Your task to perform on an android device: Search for good Indian restaurants Image 0: 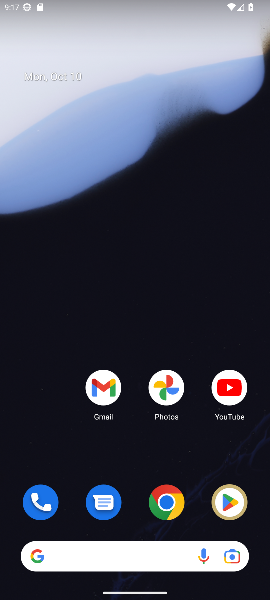
Step 0: click (164, 497)
Your task to perform on an android device: Search for good Indian restaurants Image 1: 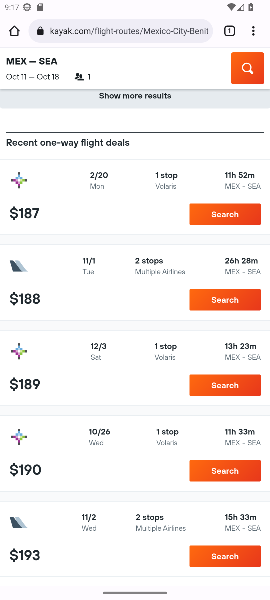
Step 1: click (108, 22)
Your task to perform on an android device: Search for good Indian restaurants Image 2: 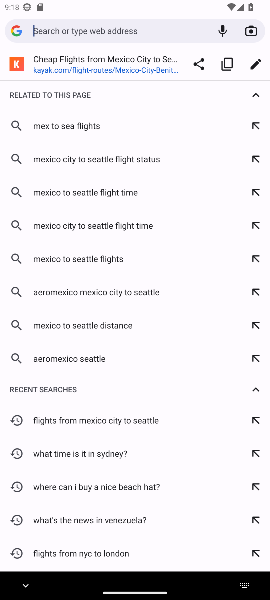
Step 2: type "good indian retuarent"
Your task to perform on an android device: Search for good Indian restaurants Image 3: 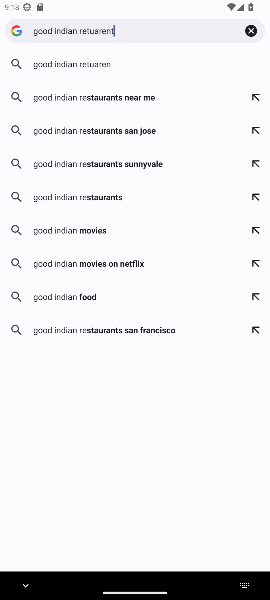
Step 3: type ""
Your task to perform on an android device: Search for good Indian restaurants Image 4: 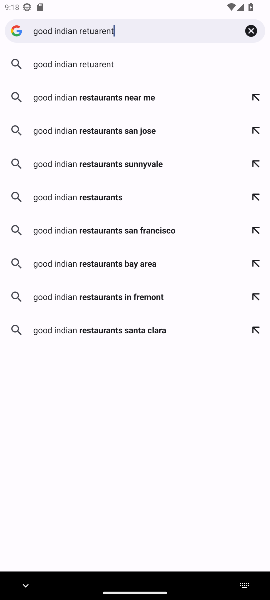
Step 4: press enter
Your task to perform on an android device: Search for good Indian restaurants Image 5: 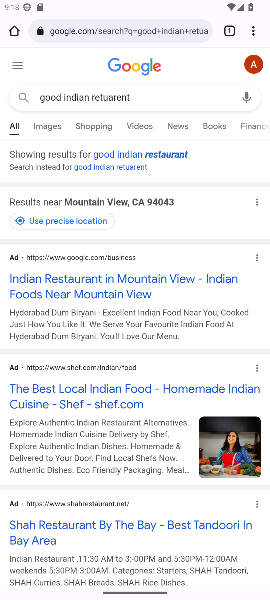
Step 5: click (162, 282)
Your task to perform on an android device: Search for good Indian restaurants Image 6: 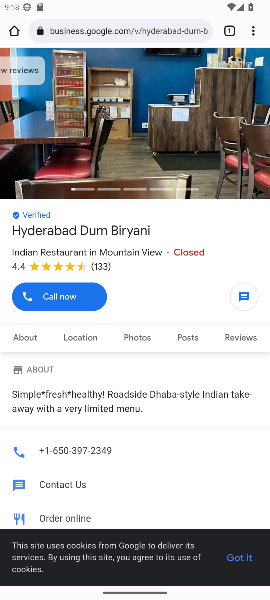
Step 6: drag from (159, 433) to (131, 466)
Your task to perform on an android device: Search for good Indian restaurants Image 7: 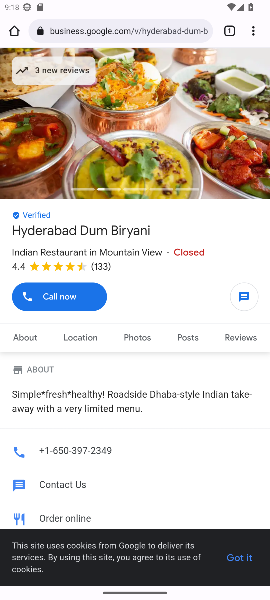
Step 7: drag from (212, 148) to (37, 143)
Your task to perform on an android device: Search for good Indian restaurants Image 8: 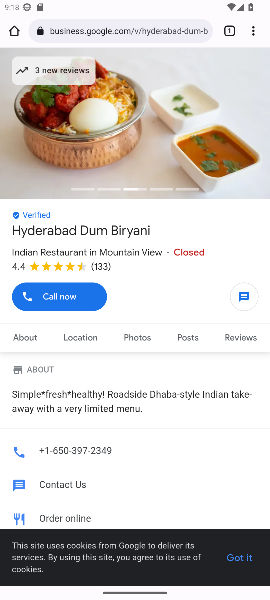
Step 8: drag from (200, 142) to (31, 137)
Your task to perform on an android device: Search for good Indian restaurants Image 9: 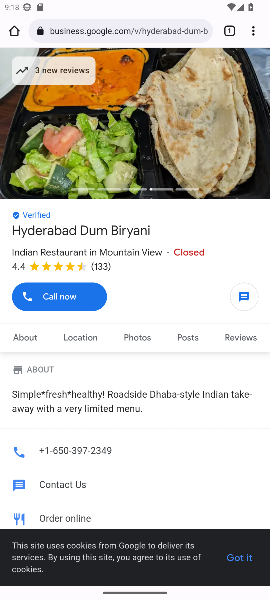
Step 9: drag from (199, 150) to (1, 151)
Your task to perform on an android device: Search for good Indian restaurants Image 10: 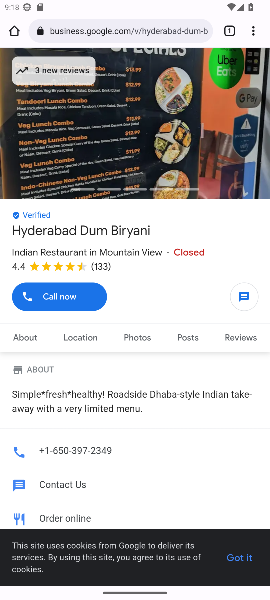
Step 10: drag from (214, 157) to (16, 180)
Your task to perform on an android device: Search for good Indian restaurants Image 11: 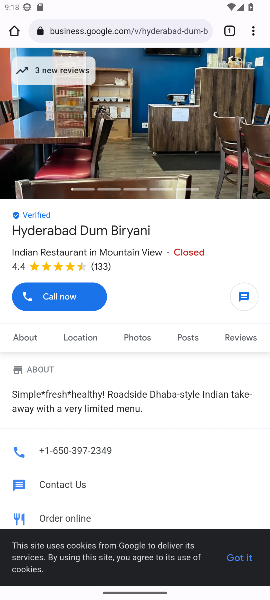
Step 11: drag from (170, 414) to (139, 115)
Your task to perform on an android device: Search for good Indian restaurants Image 12: 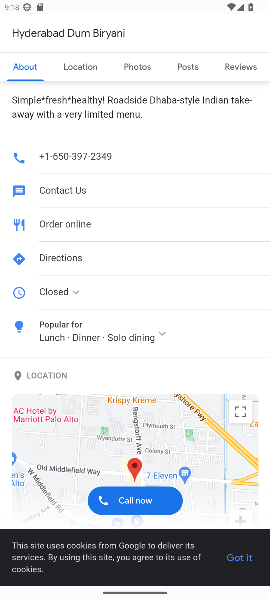
Step 12: drag from (172, 392) to (130, 110)
Your task to perform on an android device: Search for good Indian restaurants Image 13: 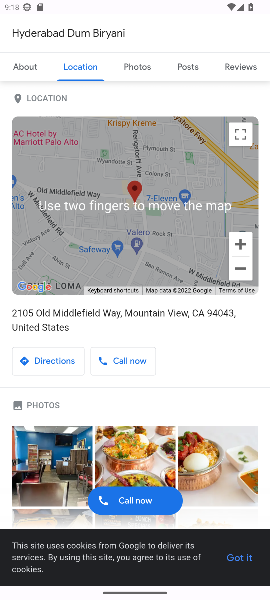
Step 13: drag from (155, 398) to (142, 118)
Your task to perform on an android device: Search for good Indian restaurants Image 14: 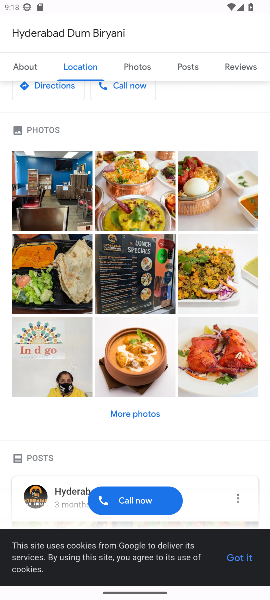
Step 14: drag from (192, 386) to (180, 262)
Your task to perform on an android device: Search for good Indian restaurants Image 15: 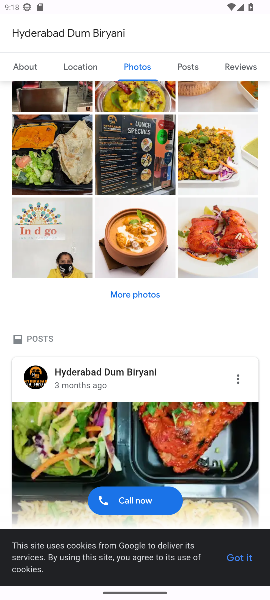
Step 15: click (57, 221)
Your task to perform on an android device: Search for good Indian restaurants Image 16: 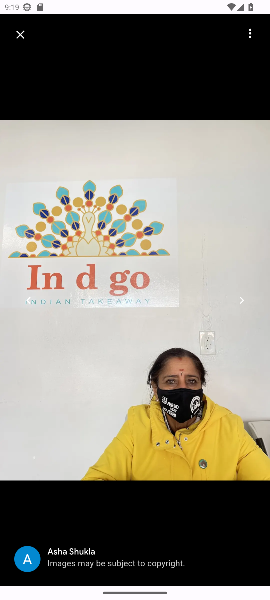
Step 16: drag from (139, 397) to (266, 393)
Your task to perform on an android device: Search for good Indian restaurants Image 17: 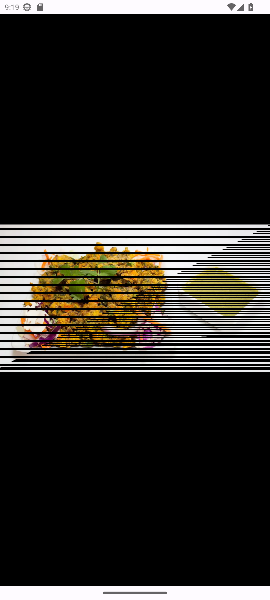
Step 17: click (17, 33)
Your task to perform on an android device: Search for good Indian restaurants Image 18: 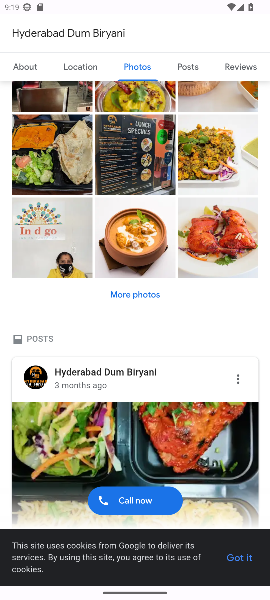
Step 18: drag from (92, 435) to (63, 56)
Your task to perform on an android device: Search for good Indian restaurants Image 19: 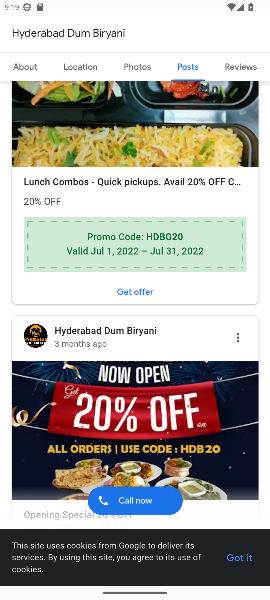
Step 19: drag from (119, 420) to (95, 108)
Your task to perform on an android device: Search for good Indian restaurants Image 20: 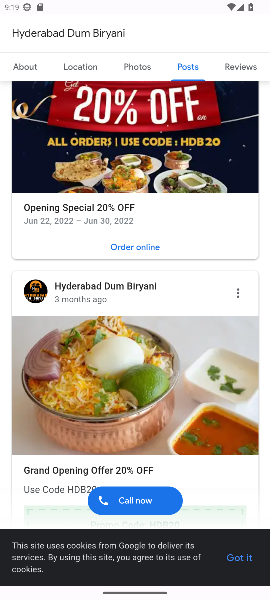
Step 20: drag from (131, 394) to (106, 150)
Your task to perform on an android device: Search for good Indian restaurants Image 21: 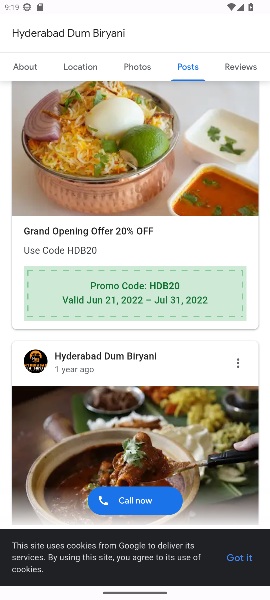
Step 21: drag from (156, 417) to (126, 102)
Your task to perform on an android device: Search for good Indian restaurants Image 22: 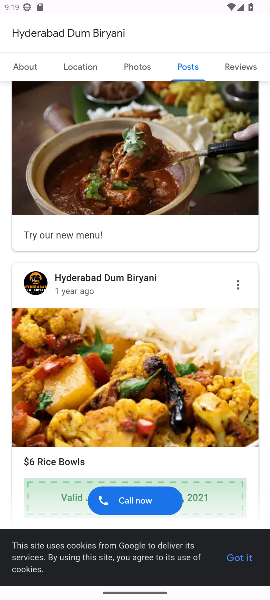
Step 22: drag from (146, 388) to (120, 97)
Your task to perform on an android device: Search for good Indian restaurants Image 23: 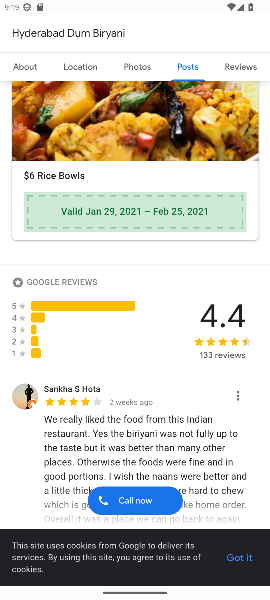
Step 23: drag from (158, 373) to (144, 151)
Your task to perform on an android device: Search for good Indian restaurants Image 24: 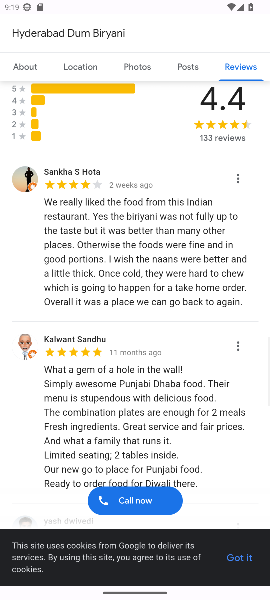
Step 24: drag from (162, 415) to (154, 116)
Your task to perform on an android device: Search for good Indian restaurants Image 25: 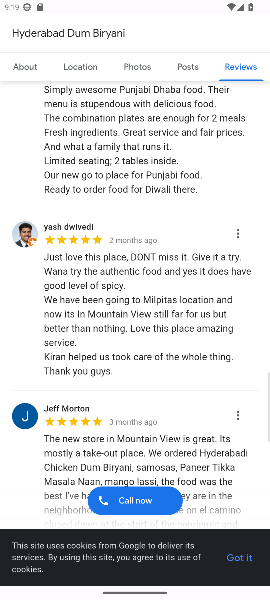
Step 25: drag from (178, 361) to (146, 157)
Your task to perform on an android device: Search for good Indian restaurants Image 26: 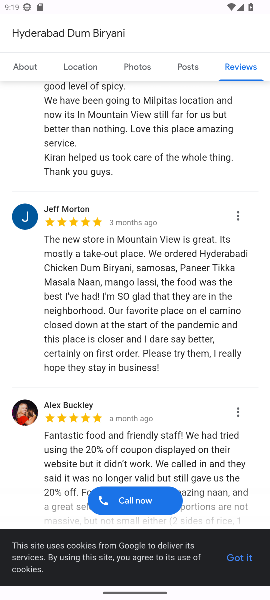
Step 26: drag from (173, 383) to (142, 175)
Your task to perform on an android device: Search for good Indian restaurants Image 27: 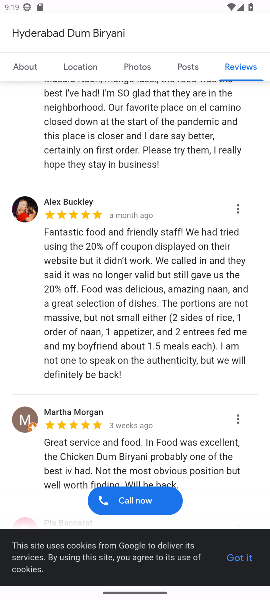
Step 27: drag from (142, 381) to (77, 165)
Your task to perform on an android device: Search for good Indian restaurants Image 28: 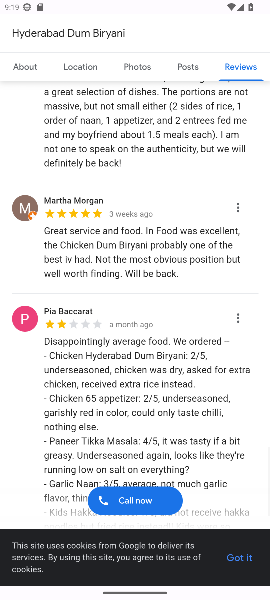
Step 28: drag from (118, 356) to (88, 134)
Your task to perform on an android device: Search for good Indian restaurants Image 29: 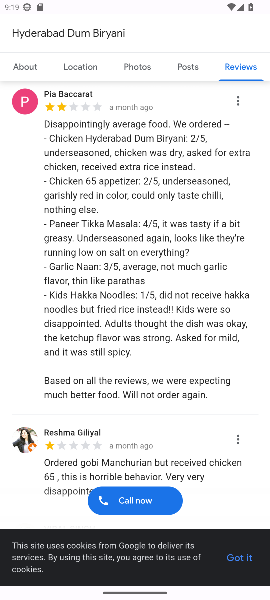
Step 29: drag from (137, 330) to (134, 187)
Your task to perform on an android device: Search for good Indian restaurants Image 30: 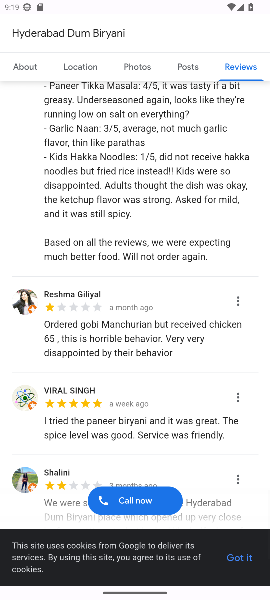
Step 30: drag from (166, 354) to (152, 206)
Your task to perform on an android device: Search for good Indian restaurants Image 31: 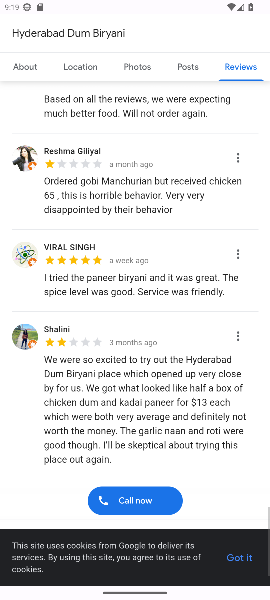
Step 31: drag from (186, 375) to (175, 187)
Your task to perform on an android device: Search for good Indian restaurants Image 32: 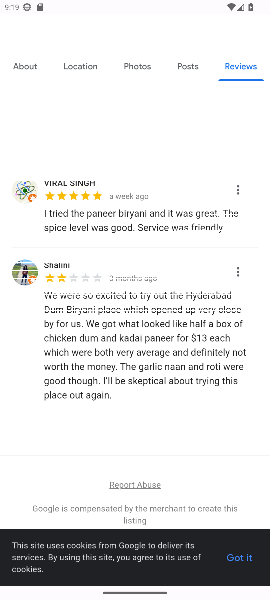
Step 32: press back button
Your task to perform on an android device: Search for good Indian restaurants Image 33: 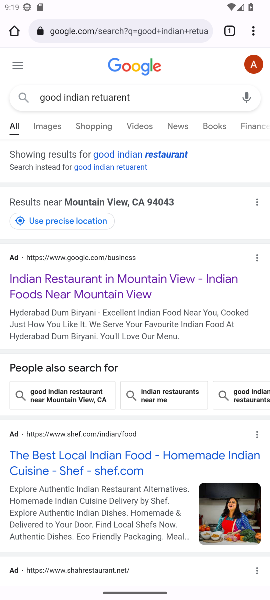
Step 33: click (85, 470)
Your task to perform on an android device: Search for good Indian restaurants Image 34: 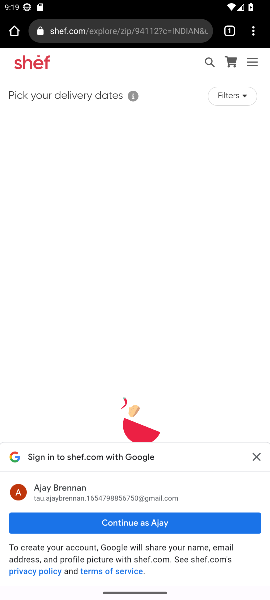
Step 34: drag from (85, 471) to (78, 362)
Your task to perform on an android device: Search for good Indian restaurants Image 35: 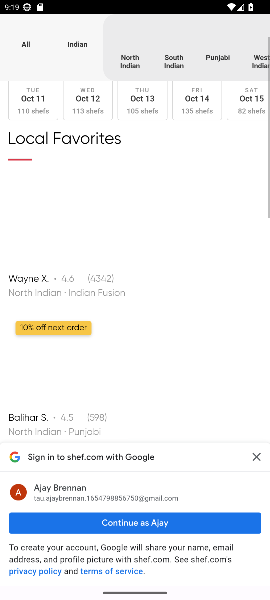
Step 35: click (221, 520)
Your task to perform on an android device: Search for good Indian restaurants Image 36: 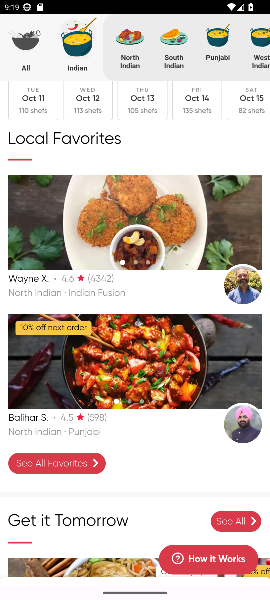
Step 36: drag from (211, 489) to (162, 199)
Your task to perform on an android device: Search for good Indian restaurants Image 37: 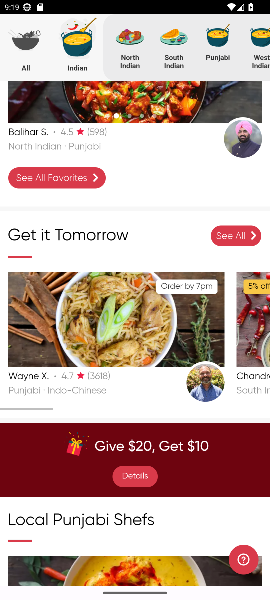
Step 37: drag from (173, 539) to (136, 175)
Your task to perform on an android device: Search for good Indian restaurants Image 38: 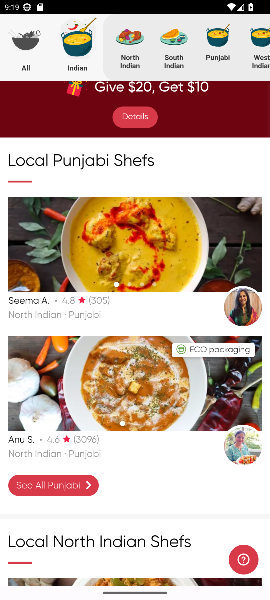
Step 38: drag from (152, 545) to (130, 109)
Your task to perform on an android device: Search for good Indian restaurants Image 39: 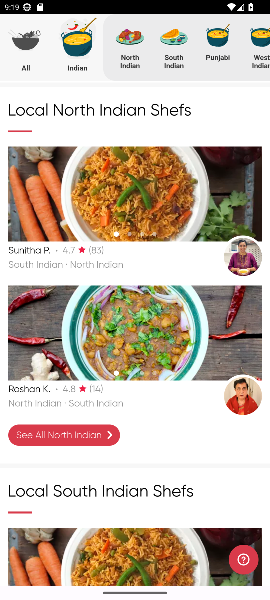
Step 39: drag from (111, 434) to (104, 89)
Your task to perform on an android device: Search for good Indian restaurants Image 40: 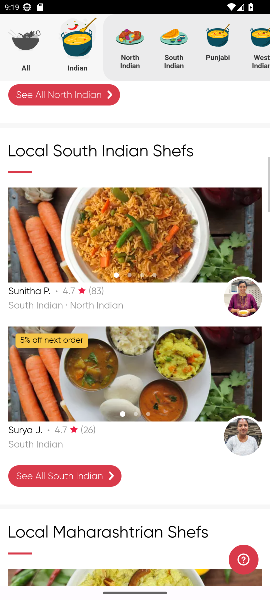
Step 40: click (28, 59)
Your task to perform on an android device: Search for good Indian restaurants Image 41: 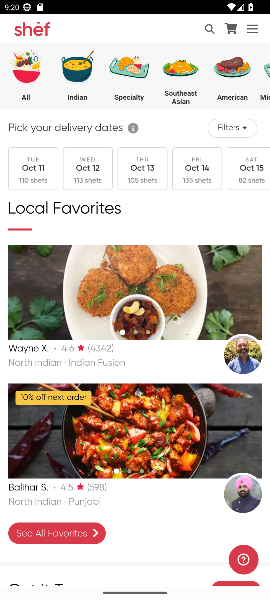
Step 41: task complete